Your task to perform on an android device: delete location history Image 0: 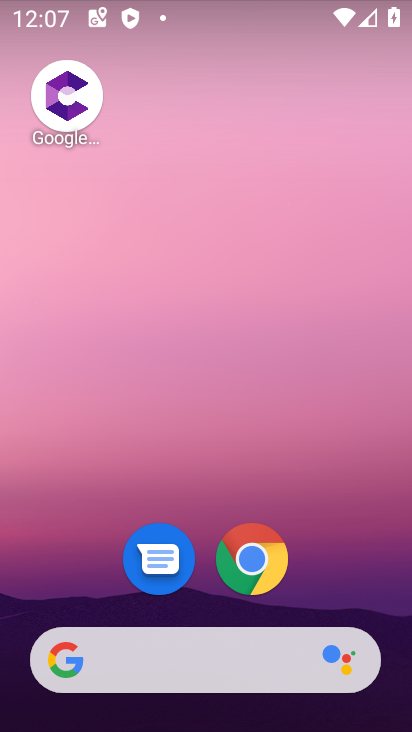
Step 0: drag from (317, 579) to (278, 322)
Your task to perform on an android device: delete location history Image 1: 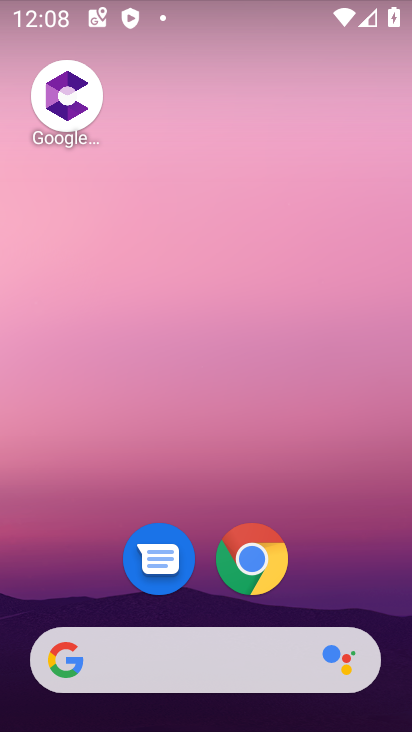
Step 1: drag from (329, 545) to (305, 124)
Your task to perform on an android device: delete location history Image 2: 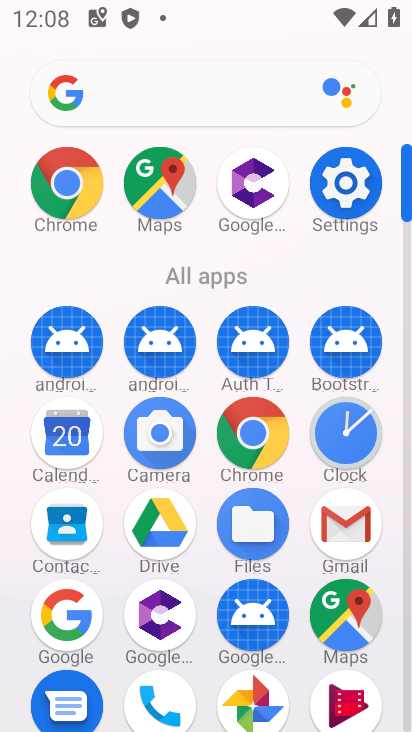
Step 2: click (323, 189)
Your task to perform on an android device: delete location history Image 3: 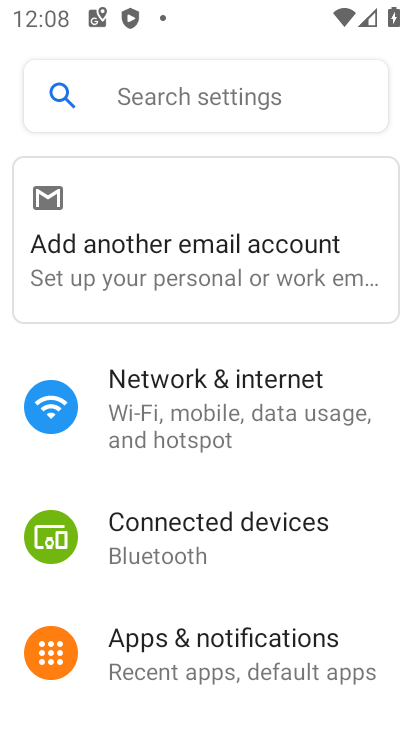
Step 3: drag from (287, 519) to (230, 168)
Your task to perform on an android device: delete location history Image 4: 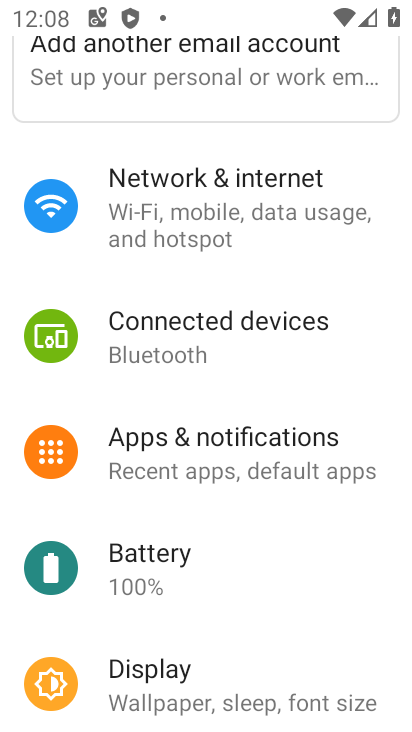
Step 4: drag from (206, 612) to (202, 462)
Your task to perform on an android device: delete location history Image 5: 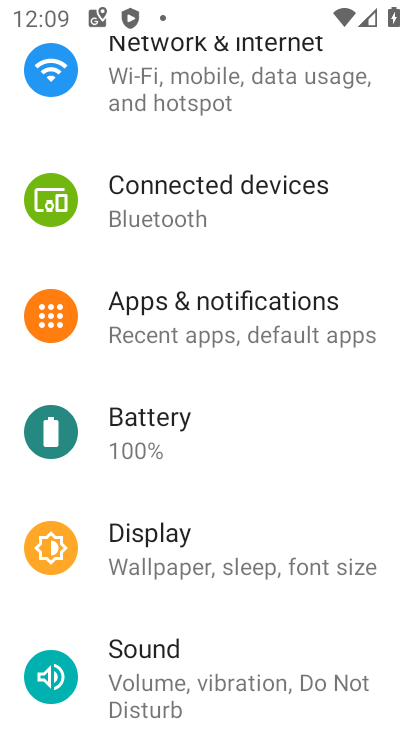
Step 5: drag from (200, 545) to (154, 269)
Your task to perform on an android device: delete location history Image 6: 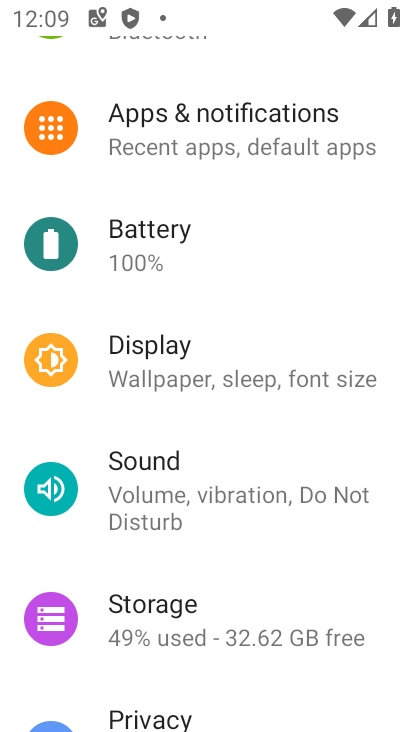
Step 6: drag from (219, 565) to (188, 467)
Your task to perform on an android device: delete location history Image 7: 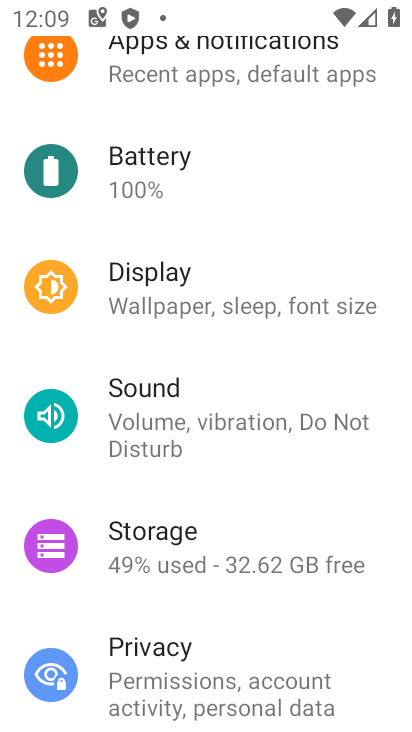
Step 7: drag from (202, 603) to (175, 302)
Your task to perform on an android device: delete location history Image 8: 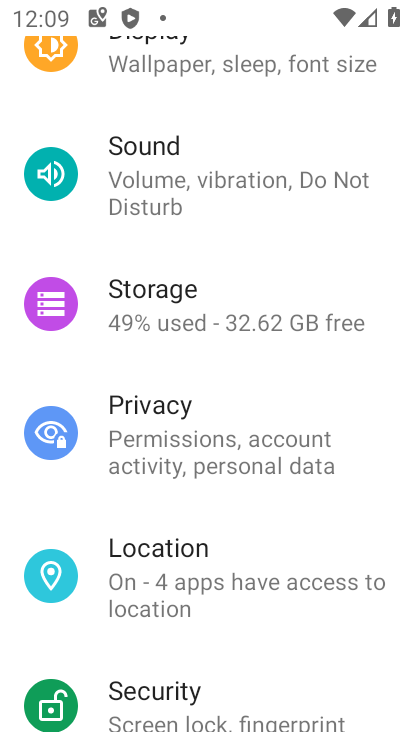
Step 8: click (185, 526)
Your task to perform on an android device: delete location history Image 9: 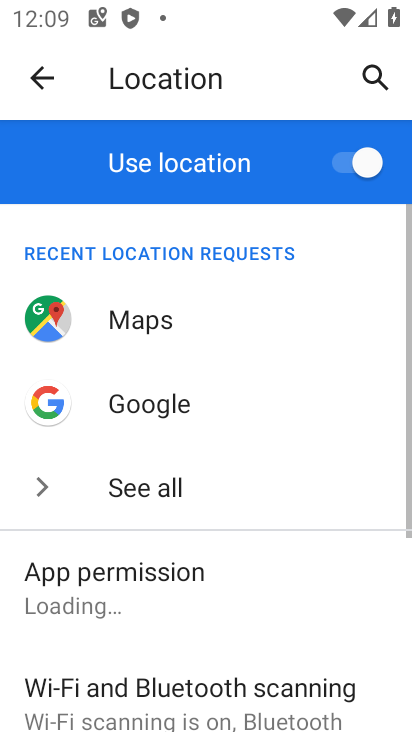
Step 9: task complete